Your task to perform on an android device: Search for sushi restaurants on Maps Image 0: 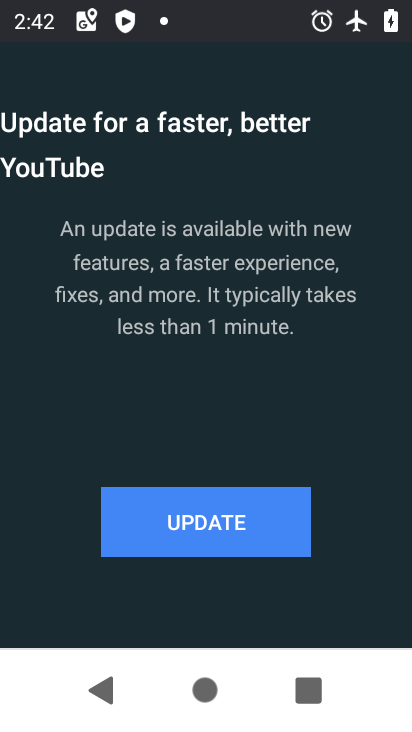
Step 0: press home button
Your task to perform on an android device: Search for sushi restaurants on Maps Image 1: 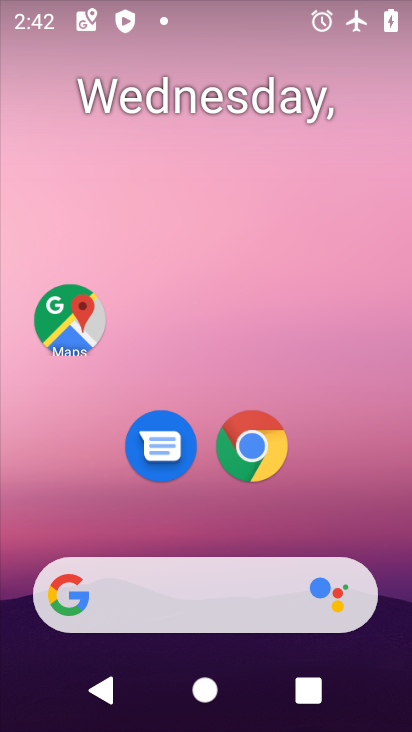
Step 1: click (43, 343)
Your task to perform on an android device: Search for sushi restaurants on Maps Image 2: 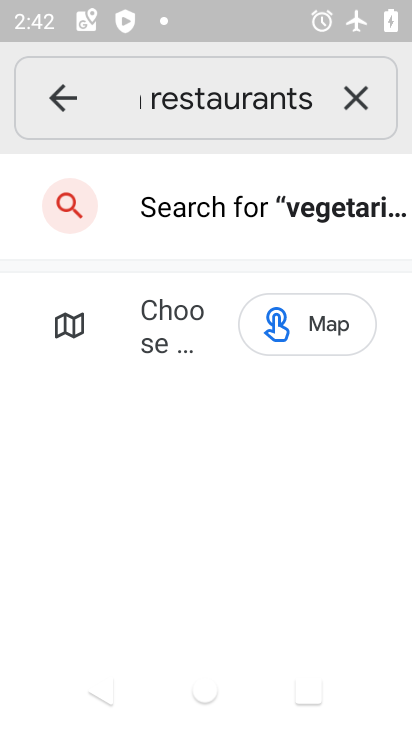
Step 2: click (355, 107)
Your task to perform on an android device: Search for sushi restaurants on Maps Image 3: 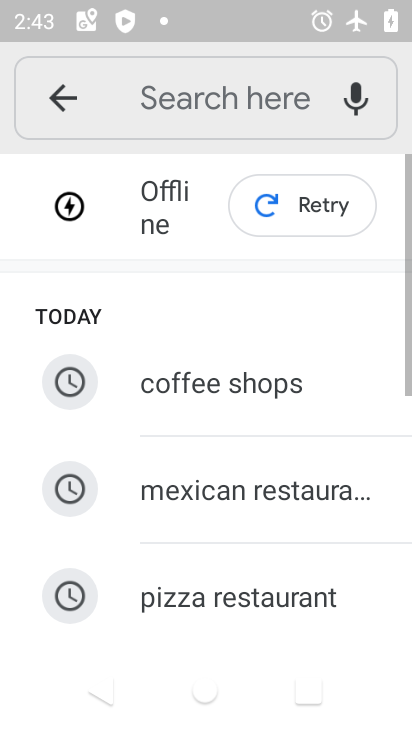
Step 3: drag from (187, 595) to (211, 365)
Your task to perform on an android device: Search for sushi restaurants on Maps Image 4: 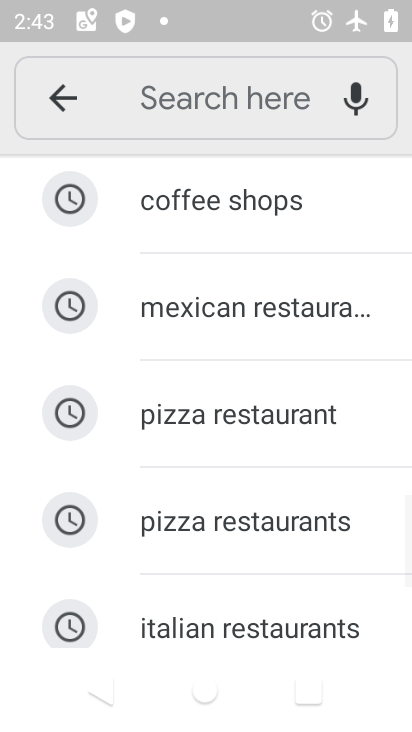
Step 4: drag from (211, 562) to (228, 229)
Your task to perform on an android device: Search for sushi restaurants on Maps Image 5: 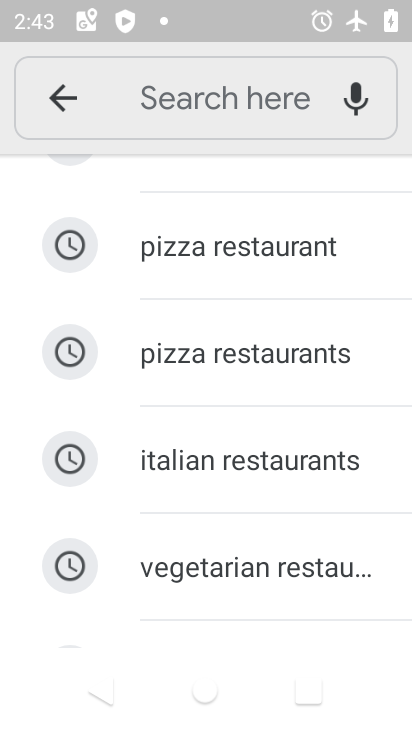
Step 5: click (212, 91)
Your task to perform on an android device: Search for sushi restaurants on Maps Image 6: 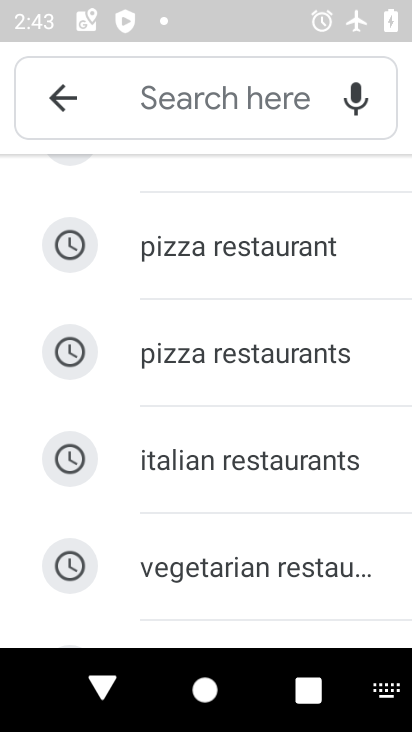
Step 6: type "sushi restaurants"
Your task to perform on an android device: Search for sushi restaurants on Maps Image 7: 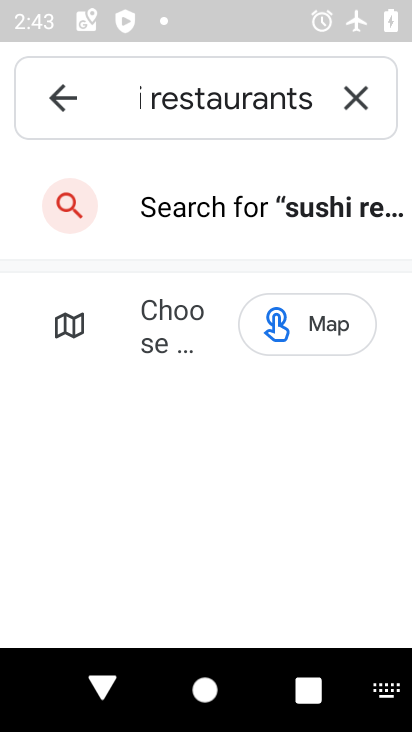
Step 7: click (367, 197)
Your task to perform on an android device: Search for sushi restaurants on Maps Image 8: 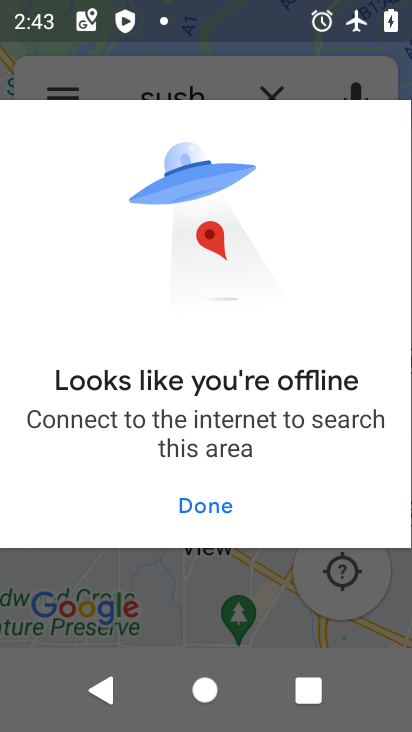
Step 8: task complete